Your task to perform on an android device: Open network settings Image 0: 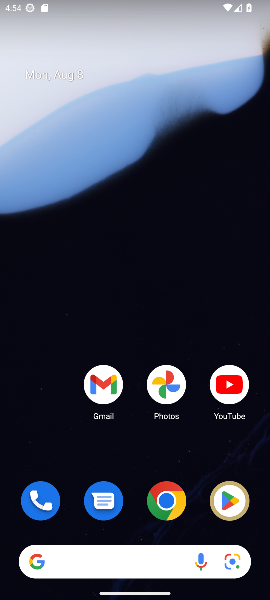
Step 0: drag from (5, 566) to (150, 194)
Your task to perform on an android device: Open network settings Image 1: 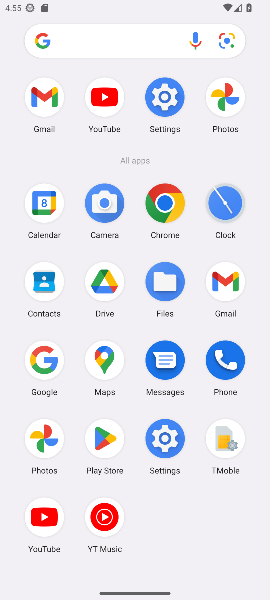
Step 1: click (161, 448)
Your task to perform on an android device: Open network settings Image 2: 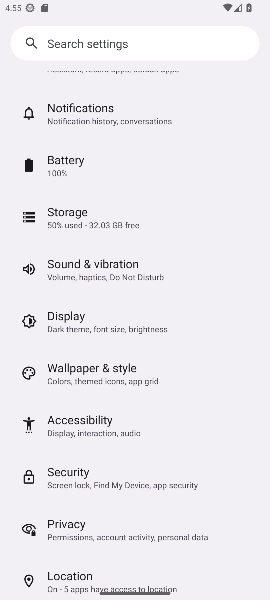
Step 2: drag from (211, 94) to (212, 285)
Your task to perform on an android device: Open network settings Image 3: 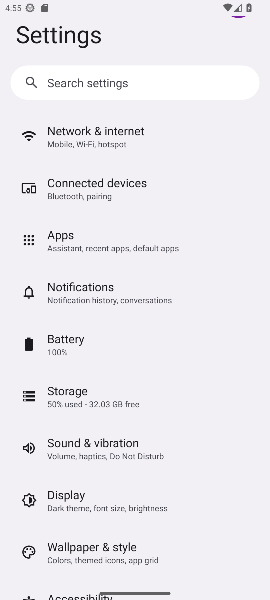
Step 3: click (86, 140)
Your task to perform on an android device: Open network settings Image 4: 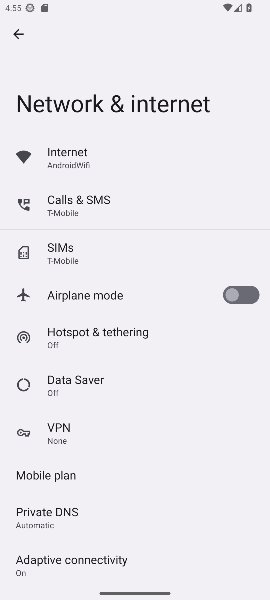
Step 4: click (79, 163)
Your task to perform on an android device: Open network settings Image 5: 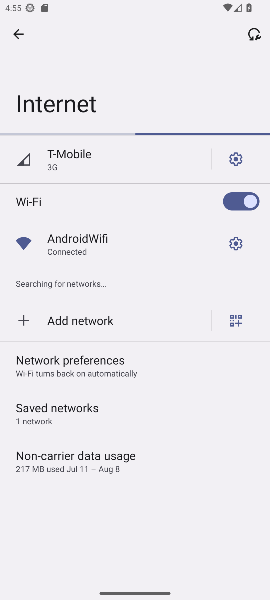
Step 5: task complete